Your task to perform on an android device: Open Yahoo.com Image 0: 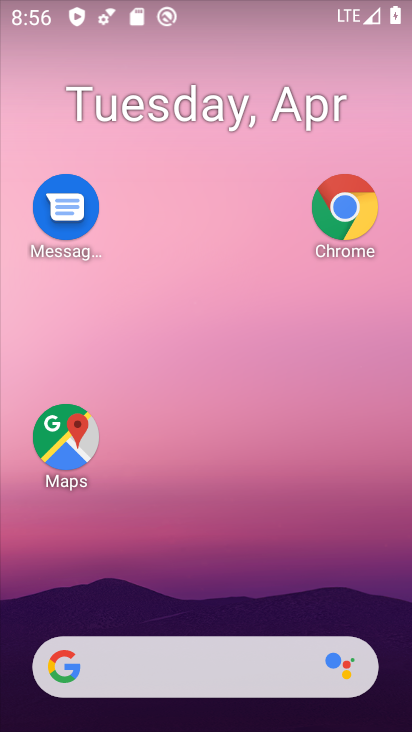
Step 0: drag from (210, 610) to (314, 0)
Your task to perform on an android device: Open Yahoo.com Image 1: 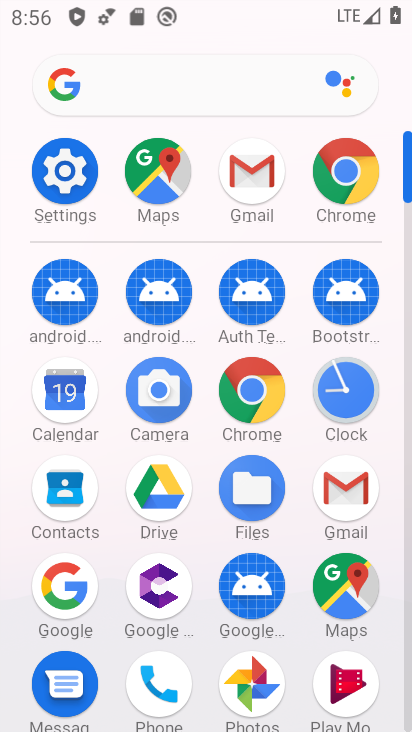
Step 1: click (254, 375)
Your task to perform on an android device: Open Yahoo.com Image 2: 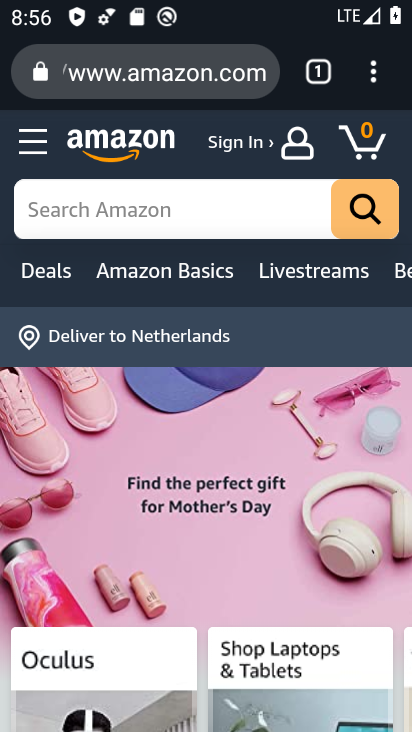
Step 2: click (328, 58)
Your task to perform on an android device: Open Yahoo.com Image 3: 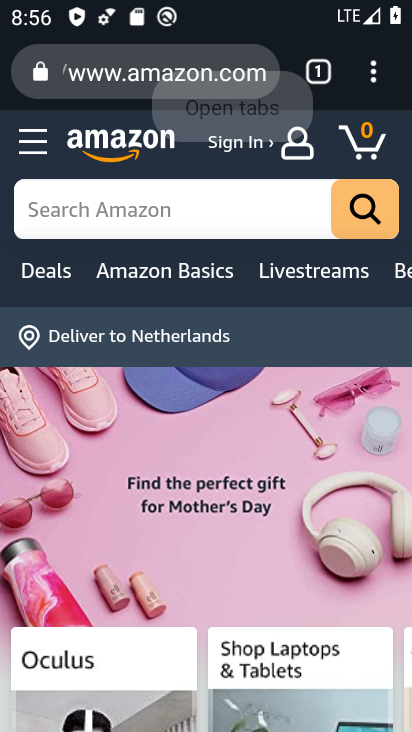
Step 3: click (309, 65)
Your task to perform on an android device: Open Yahoo.com Image 4: 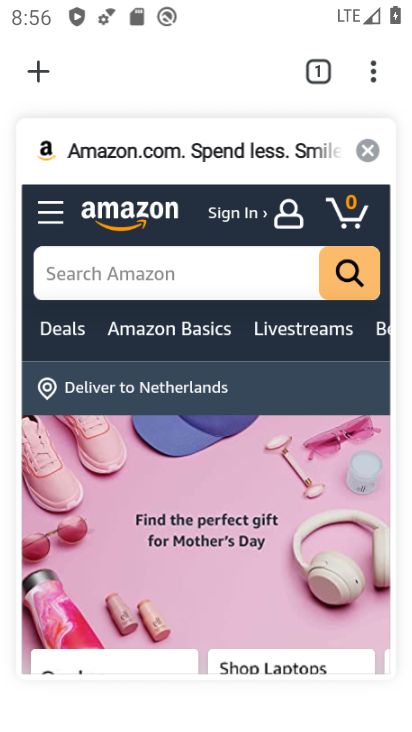
Step 4: click (30, 76)
Your task to perform on an android device: Open Yahoo.com Image 5: 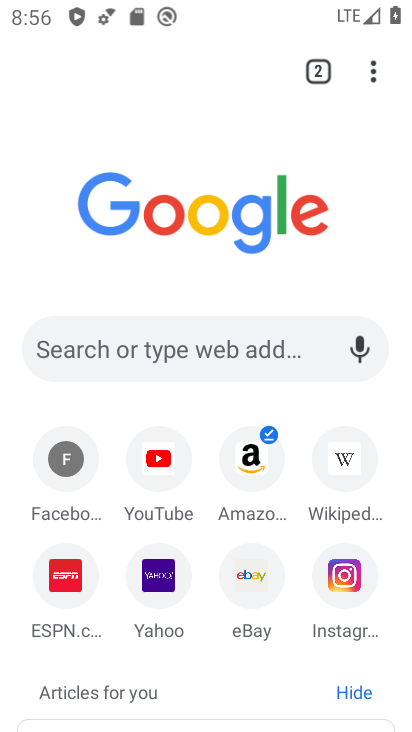
Step 5: click (143, 588)
Your task to perform on an android device: Open Yahoo.com Image 6: 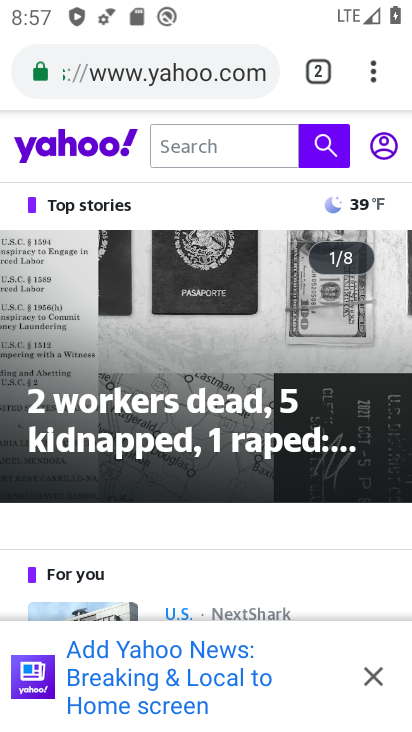
Step 6: task complete